Your task to perform on an android device: Open accessibility settings Image 0: 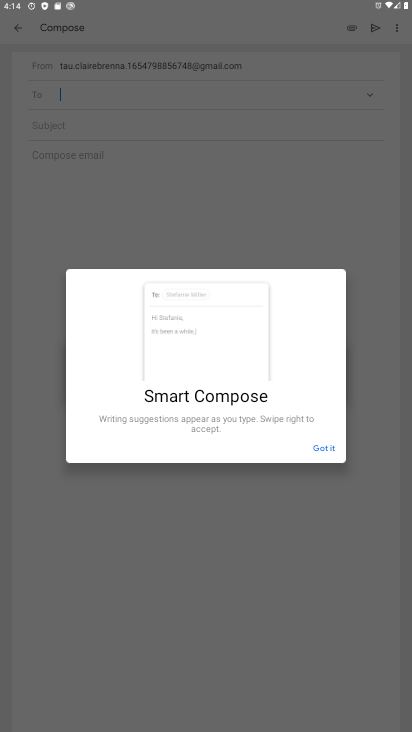
Step 0: press home button
Your task to perform on an android device: Open accessibility settings Image 1: 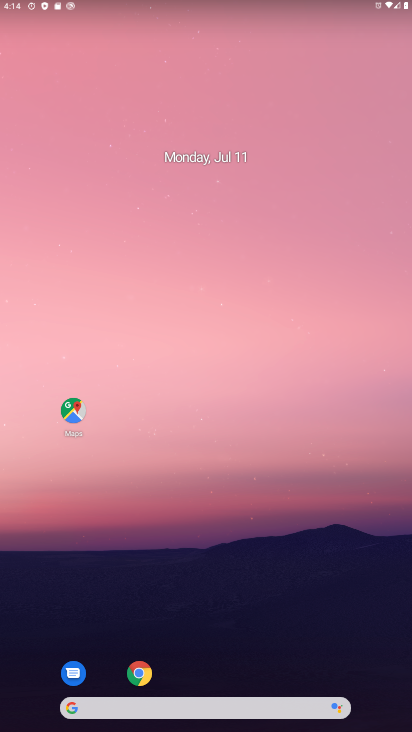
Step 1: drag from (265, 659) to (247, 87)
Your task to perform on an android device: Open accessibility settings Image 2: 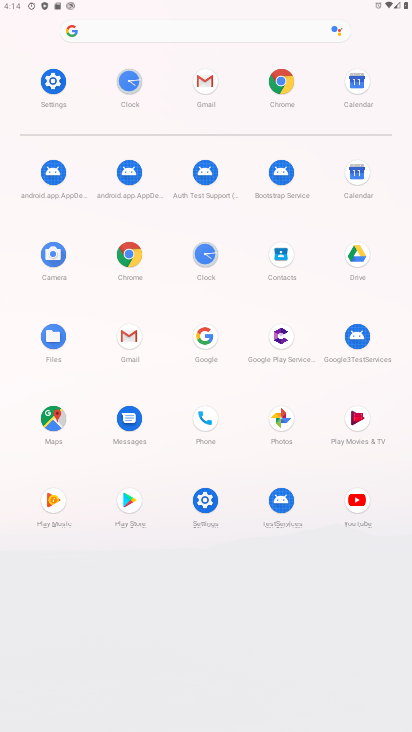
Step 2: click (51, 79)
Your task to perform on an android device: Open accessibility settings Image 3: 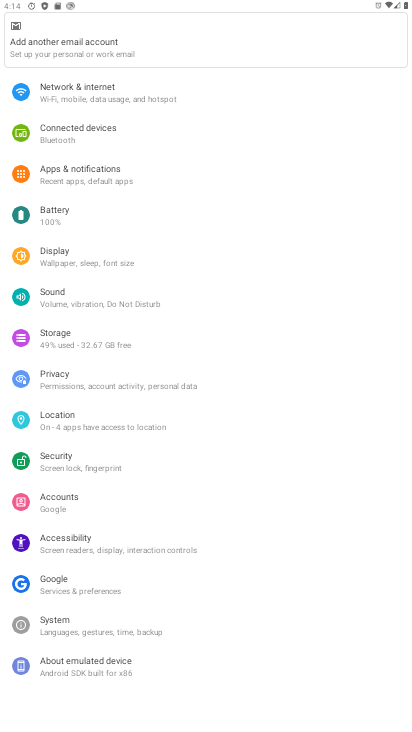
Step 3: click (69, 538)
Your task to perform on an android device: Open accessibility settings Image 4: 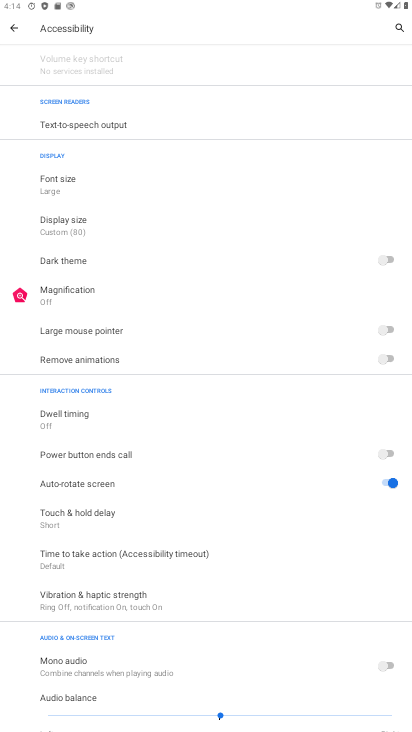
Step 4: task complete